Your task to perform on an android device: Go to Reddit.com Image 0: 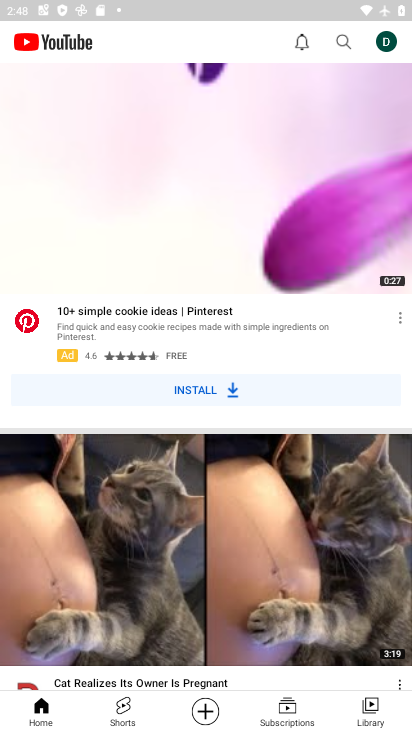
Step 0: press home button
Your task to perform on an android device: Go to Reddit.com Image 1: 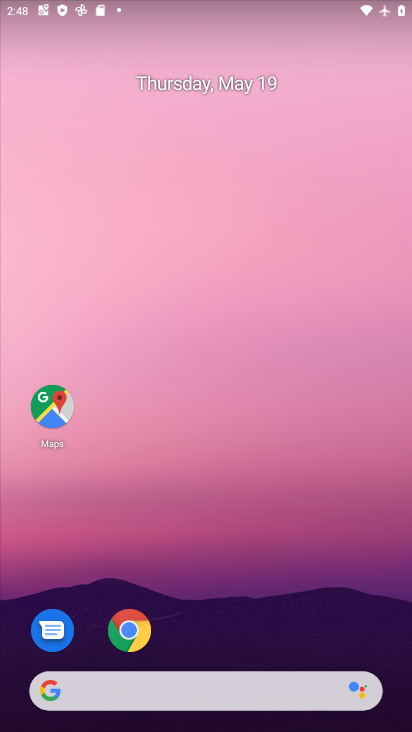
Step 1: click (128, 629)
Your task to perform on an android device: Go to Reddit.com Image 2: 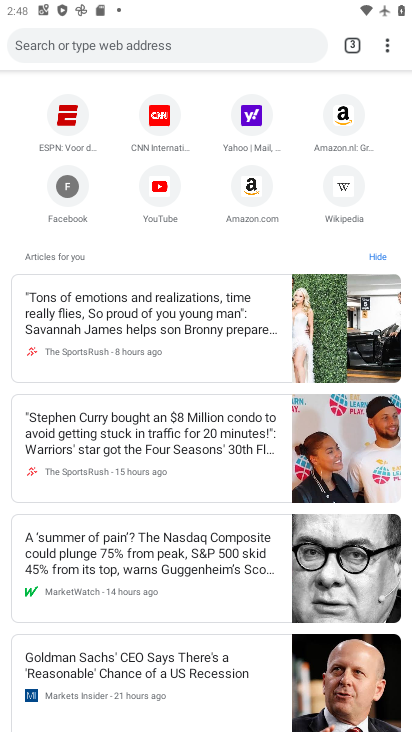
Step 2: click (103, 39)
Your task to perform on an android device: Go to Reddit.com Image 3: 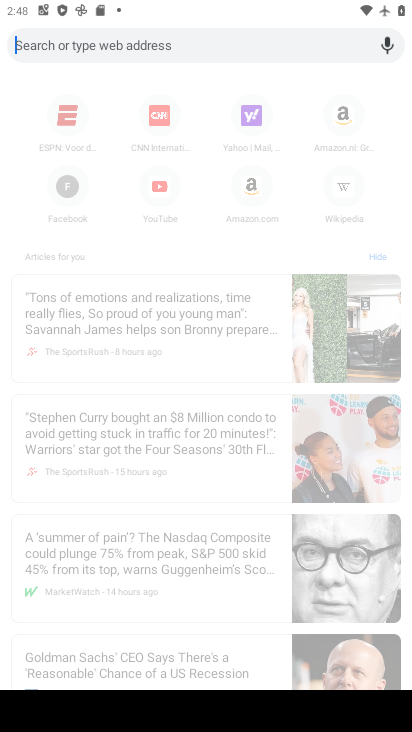
Step 3: type "reddit.com"
Your task to perform on an android device: Go to Reddit.com Image 4: 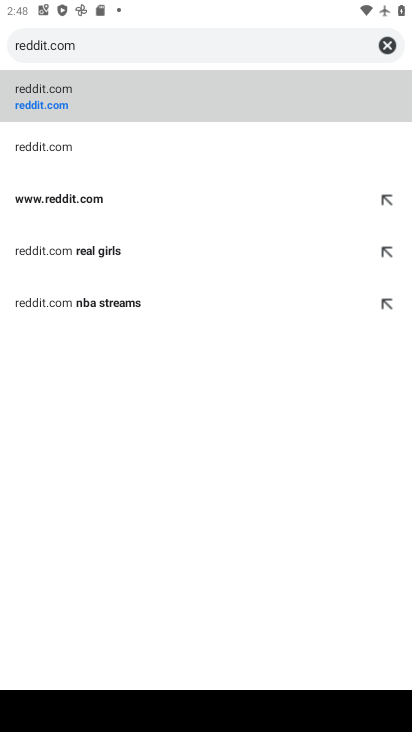
Step 4: click (41, 92)
Your task to perform on an android device: Go to Reddit.com Image 5: 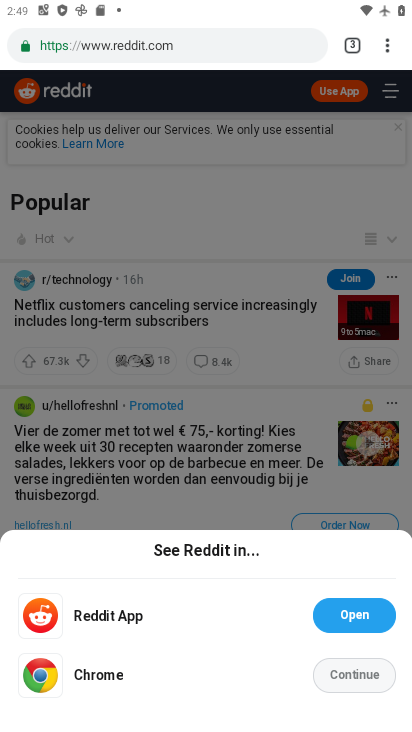
Step 5: task complete